Your task to perform on an android device: Open Chrome and go to the settings page Image 0: 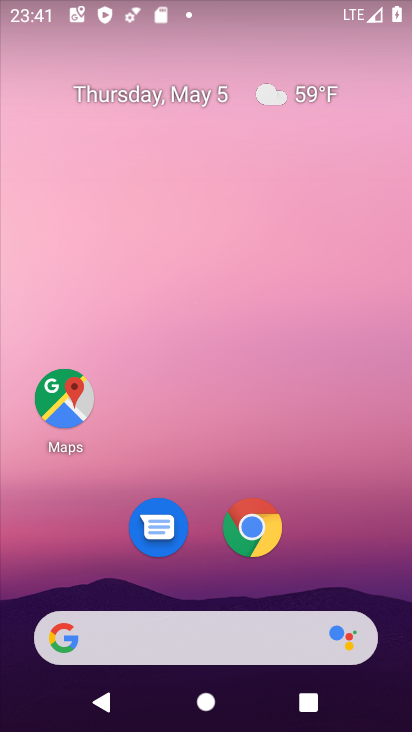
Step 0: click (266, 531)
Your task to perform on an android device: Open Chrome and go to the settings page Image 1: 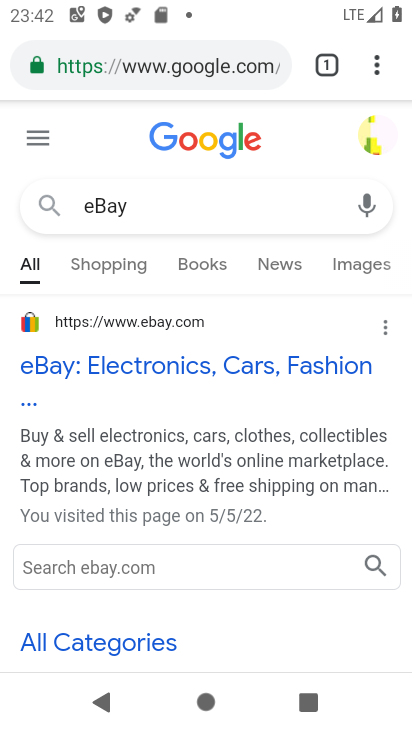
Step 1: click (385, 63)
Your task to perform on an android device: Open Chrome and go to the settings page Image 2: 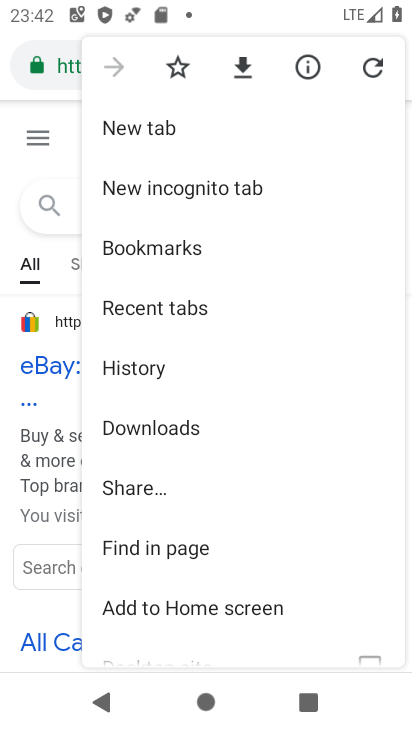
Step 2: drag from (197, 577) to (225, 381)
Your task to perform on an android device: Open Chrome and go to the settings page Image 3: 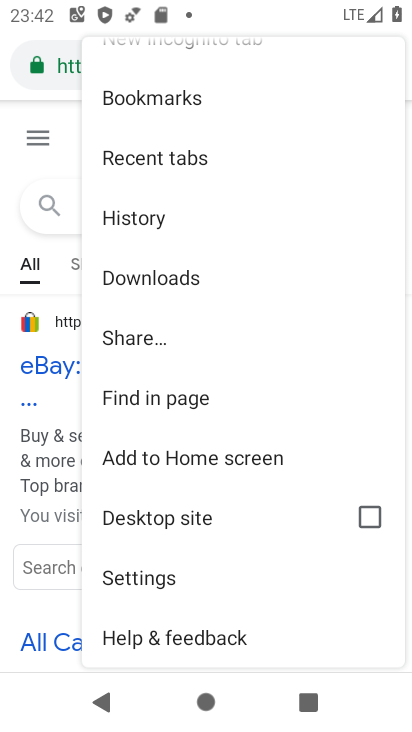
Step 3: click (151, 578)
Your task to perform on an android device: Open Chrome and go to the settings page Image 4: 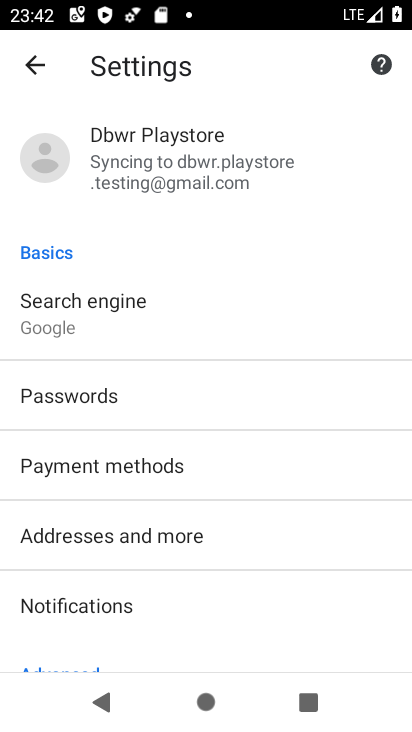
Step 4: task complete